Your task to perform on an android device: turn on translation in the chrome app Image 0: 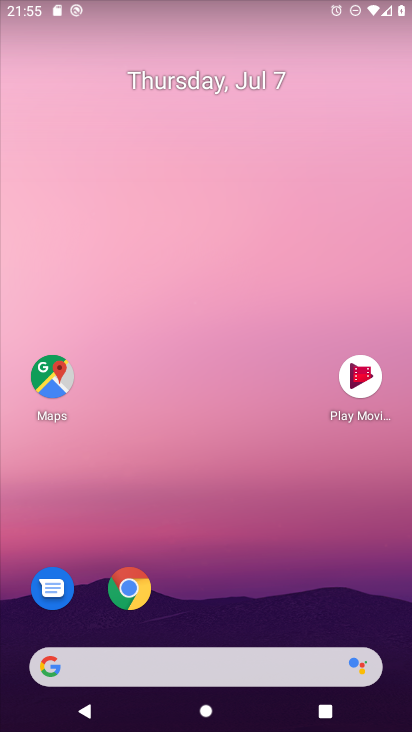
Step 0: click (132, 586)
Your task to perform on an android device: turn on translation in the chrome app Image 1: 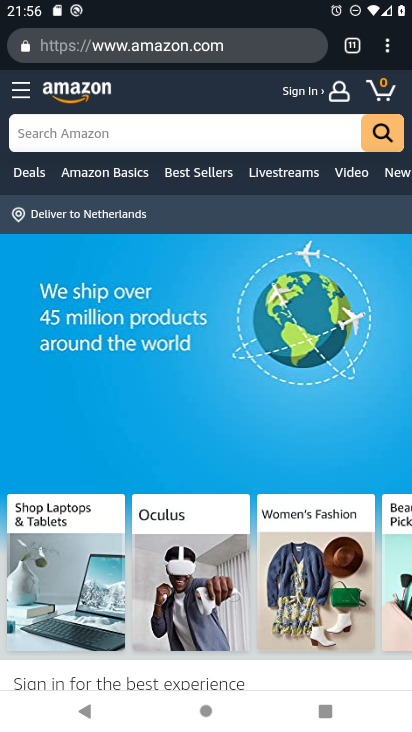
Step 1: press home button
Your task to perform on an android device: turn on translation in the chrome app Image 2: 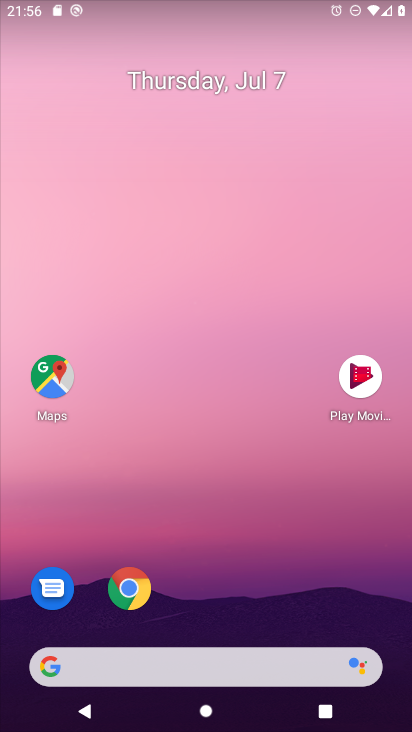
Step 2: drag from (179, 607) to (207, 218)
Your task to perform on an android device: turn on translation in the chrome app Image 3: 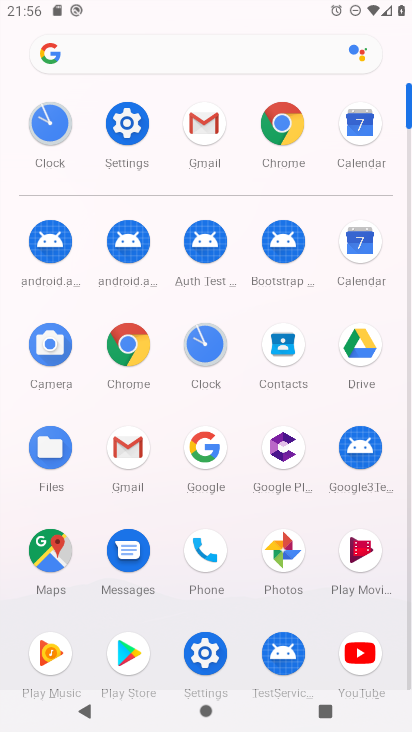
Step 3: click (288, 113)
Your task to perform on an android device: turn on translation in the chrome app Image 4: 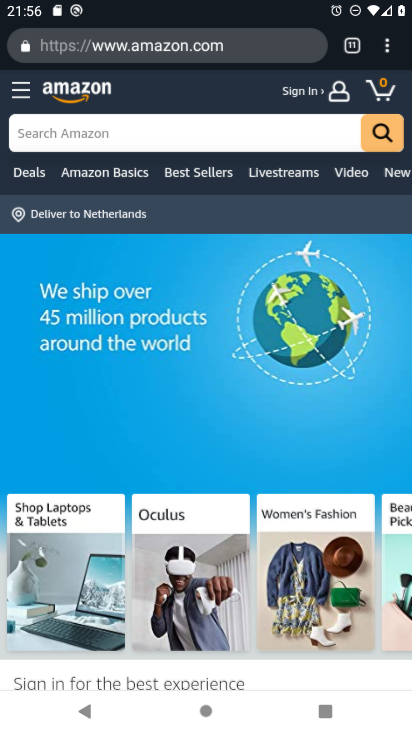
Step 4: click (394, 54)
Your task to perform on an android device: turn on translation in the chrome app Image 5: 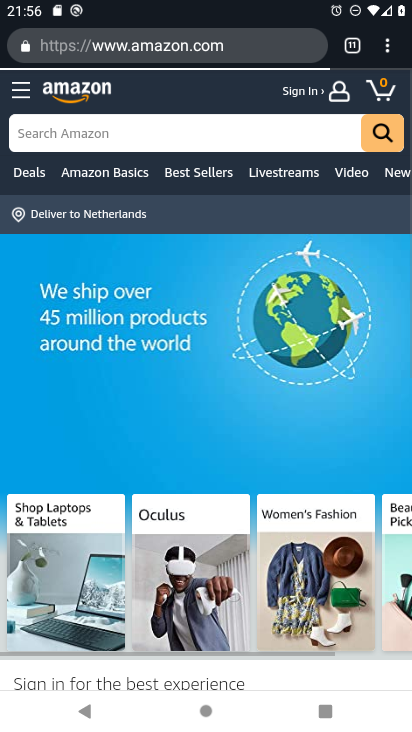
Step 5: click (394, 54)
Your task to perform on an android device: turn on translation in the chrome app Image 6: 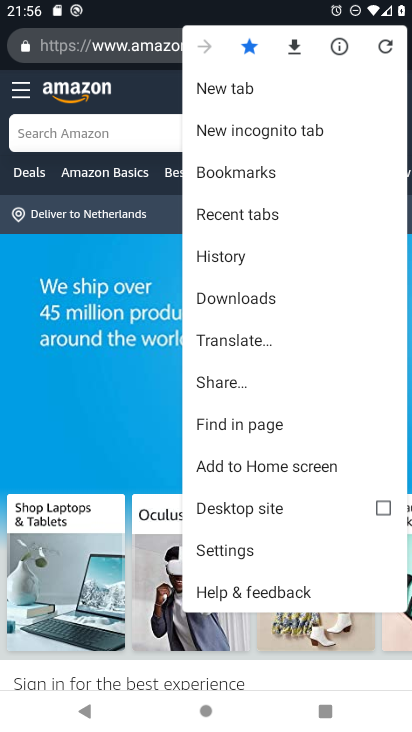
Step 6: click (236, 536)
Your task to perform on an android device: turn on translation in the chrome app Image 7: 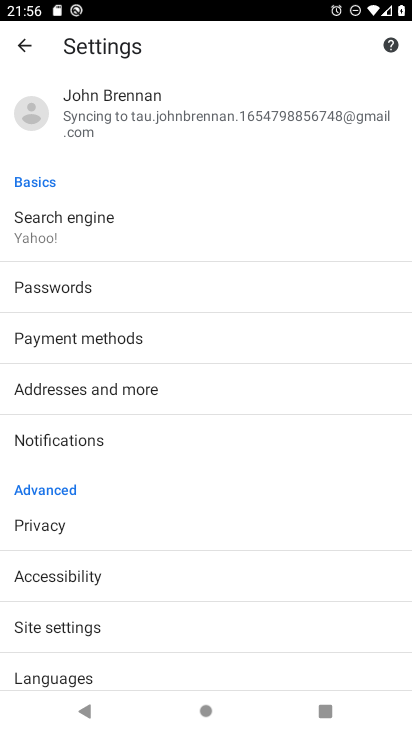
Step 7: drag from (137, 632) to (154, 353)
Your task to perform on an android device: turn on translation in the chrome app Image 8: 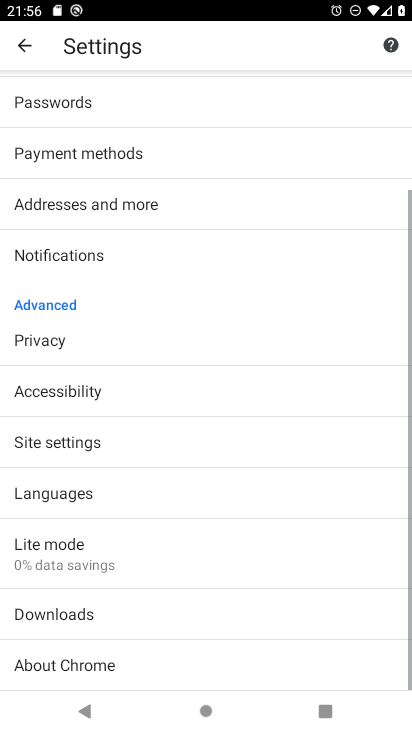
Step 8: click (104, 501)
Your task to perform on an android device: turn on translation in the chrome app Image 9: 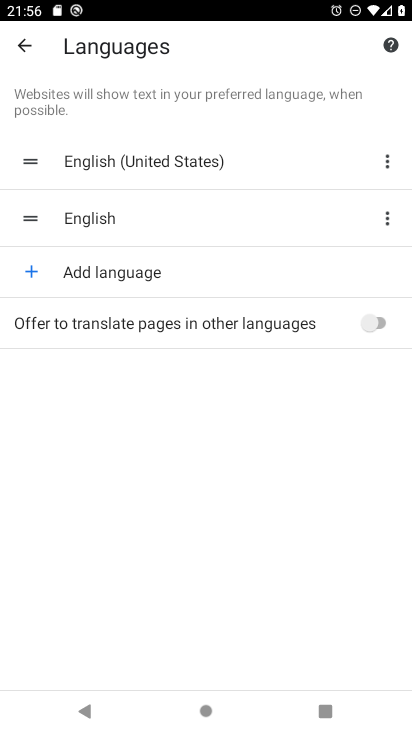
Step 9: click (361, 319)
Your task to perform on an android device: turn on translation in the chrome app Image 10: 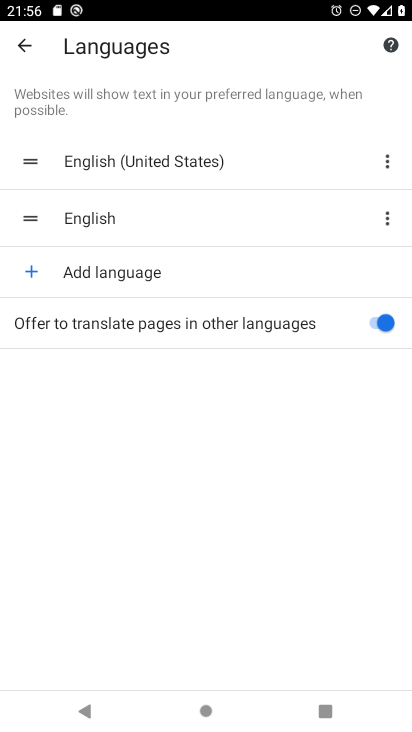
Step 10: task complete